Your task to perform on an android device: turn off airplane mode Image 0: 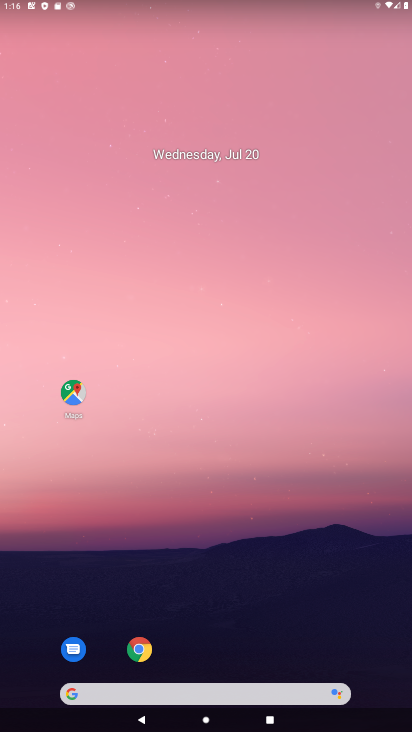
Step 0: press home button
Your task to perform on an android device: turn off airplane mode Image 1: 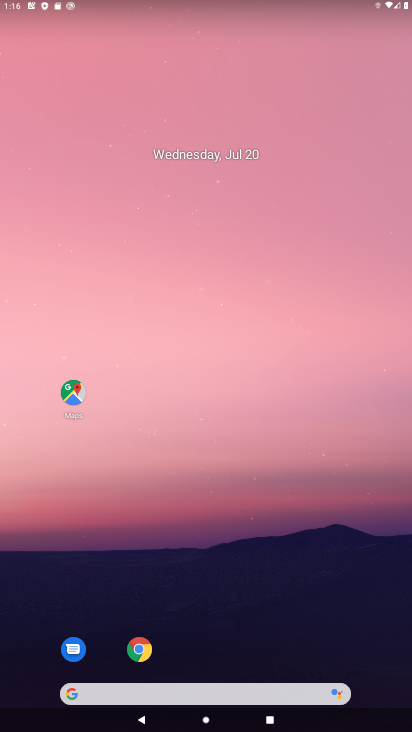
Step 1: task complete